Your task to perform on an android device: turn on bluetooth scan Image 0: 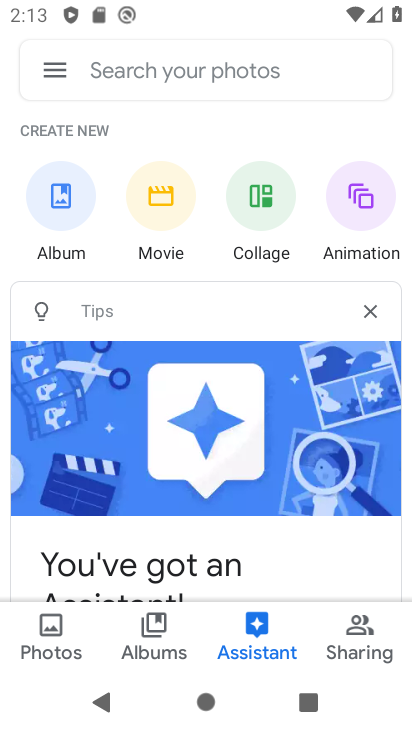
Step 0: press home button
Your task to perform on an android device: turn on bluetooth scan Image 1: 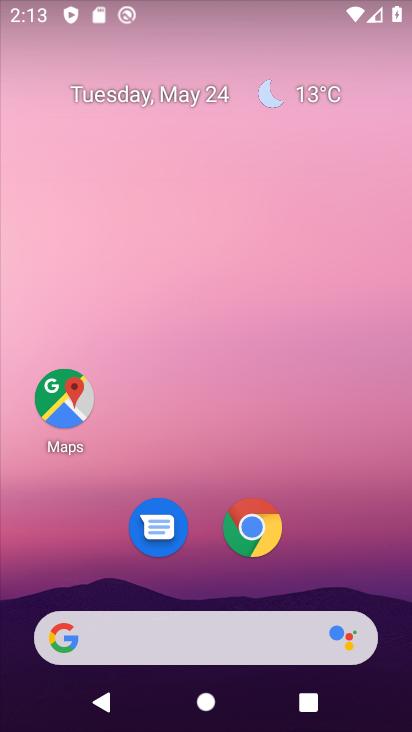
Step 1: drag from (266, 518) to (323, 65)
Your task to perform on an android device: turn on bluetooth scan Image 2: 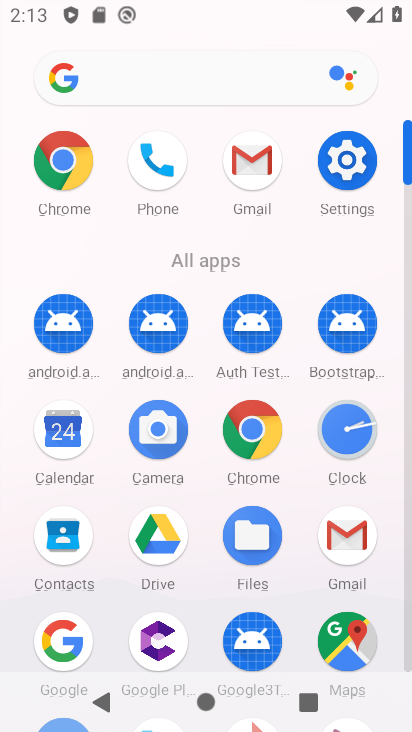
Step 2: click (354, 153)
Your task to perform on an android device: turn on bluetooth scan Image 3: 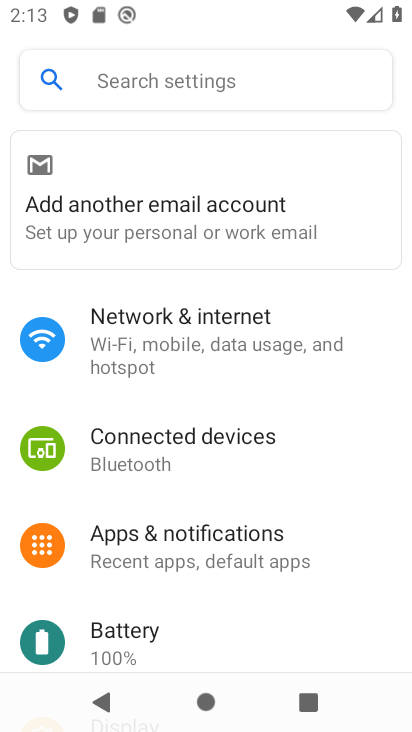
Step 3: drag from (180, 621) to (276, 270)
Your task to perform on an android device: turn on bluetooth scan Image 4: 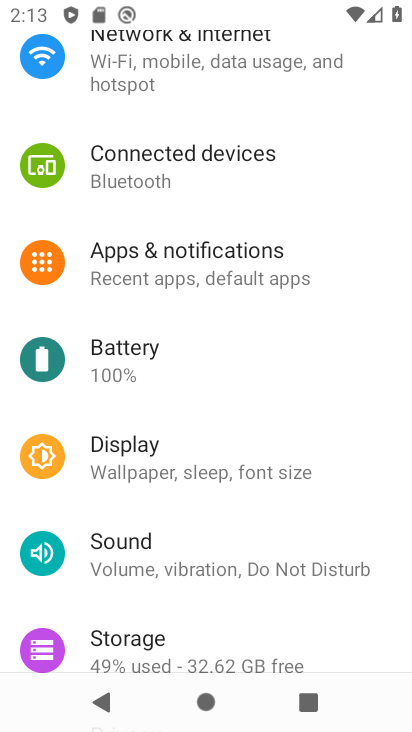
Step 4: drag from (272, 601) to (349, 213)
Your task to perform on an android device: turn on bluetooth scan Image 5: 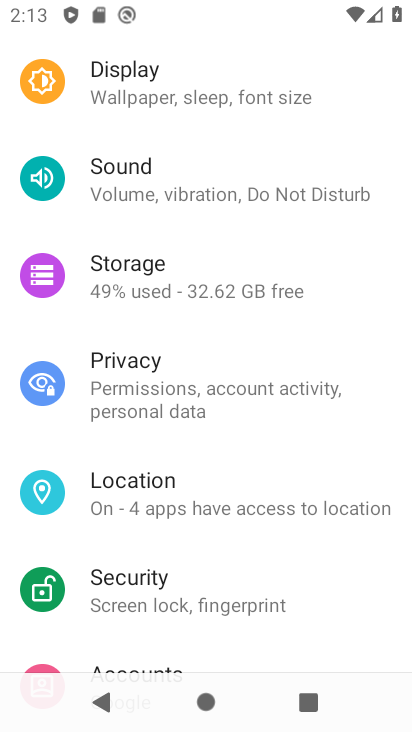
Step 5: click (195, 483)
Your task to perform on an android device: turn on bluetooth scan Image 6: 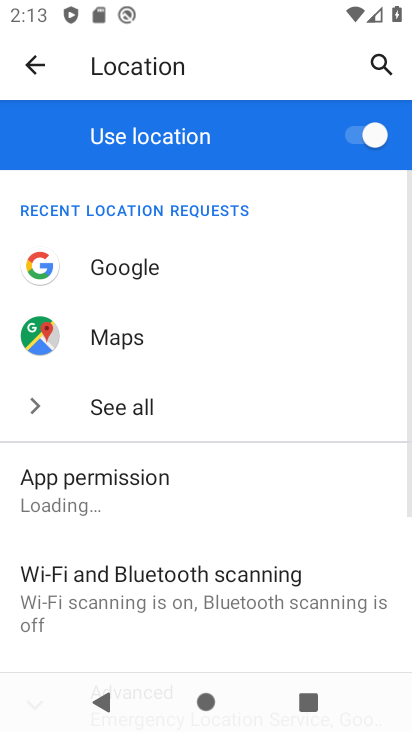
Step 6: click (218, 604)
Your task to perform on an android device: turn on bluetooth scan Image 7: 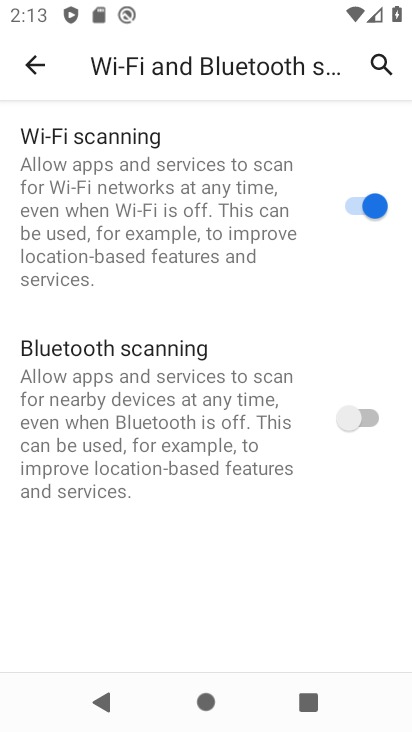
Step 7: click (363, 424)
Your task to perform on an android device: turn on bluetooth scan Image 8: 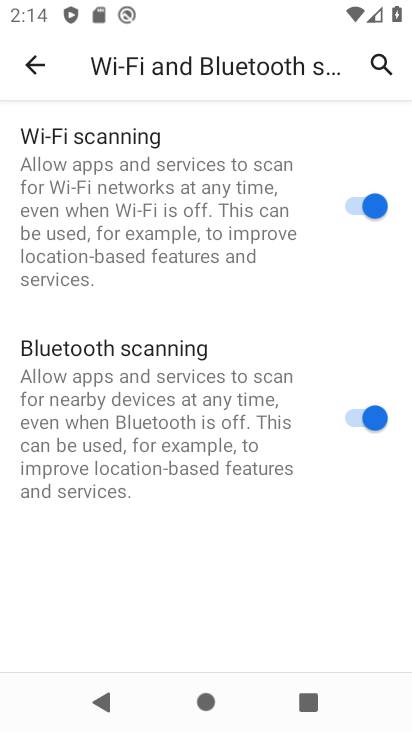
Step 8: task complete